Your task to perform on an android device: Check the weather Image 0: 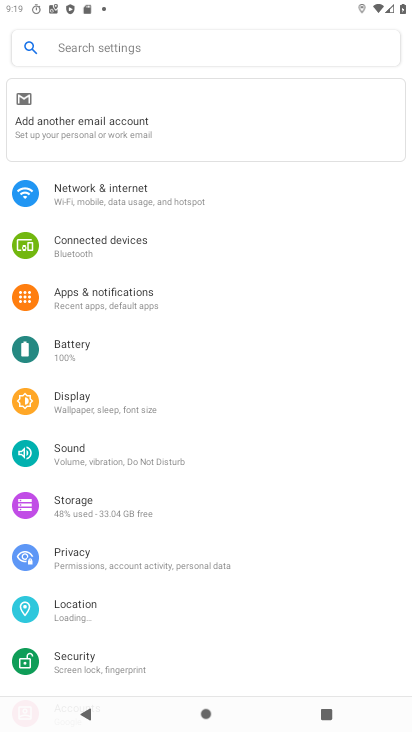
Step 0: press home button
Your task to perform on an android device: Check the weather Image 1: 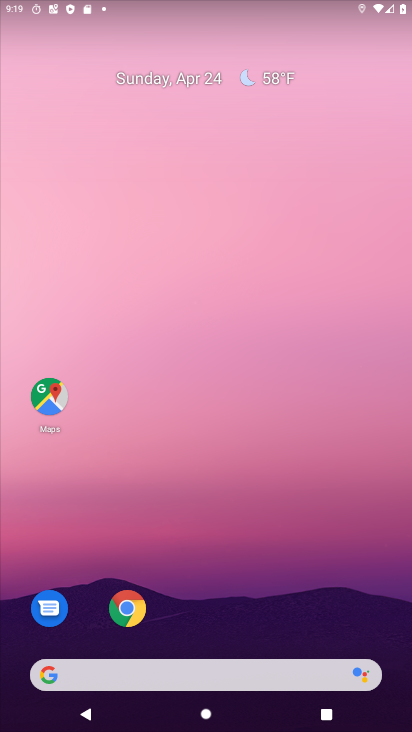
Step 1: click (239, 674)
Your task to perform on an android device: Check the weather Image 2: 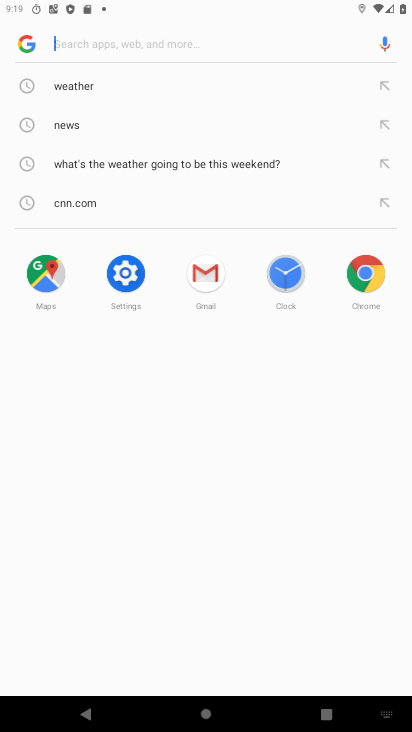
Step 2: click (80, 85)
Your task to perform on an android device: Check the weather Image 3: 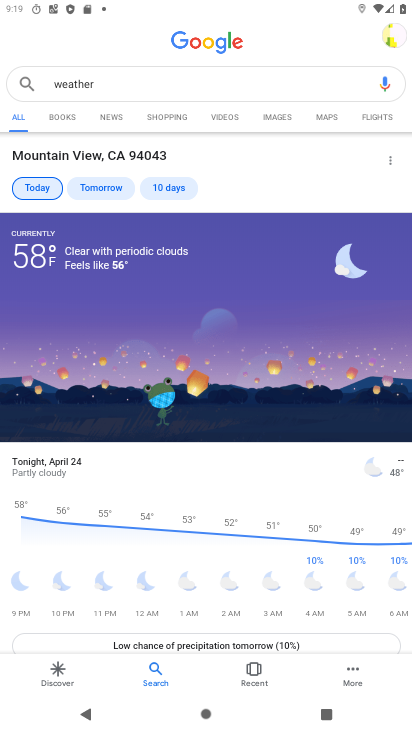
Step 3: task complete